Your task to perform on an android device: Open network settings Image 0: 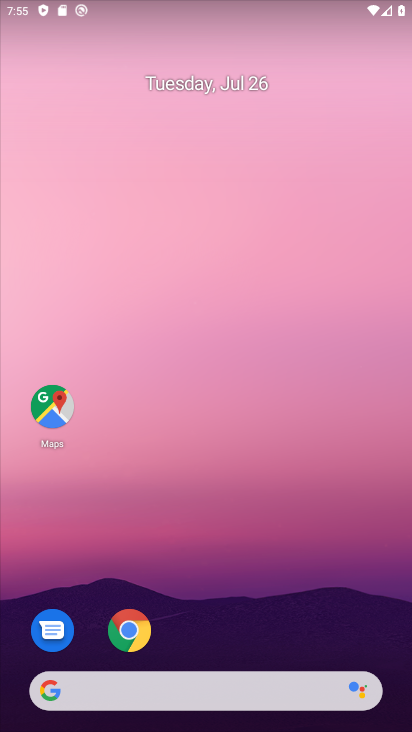
Step 0: drag from (257, 665) to (212, 148)
Your task to perform on an android device: Open network settings Image 1: 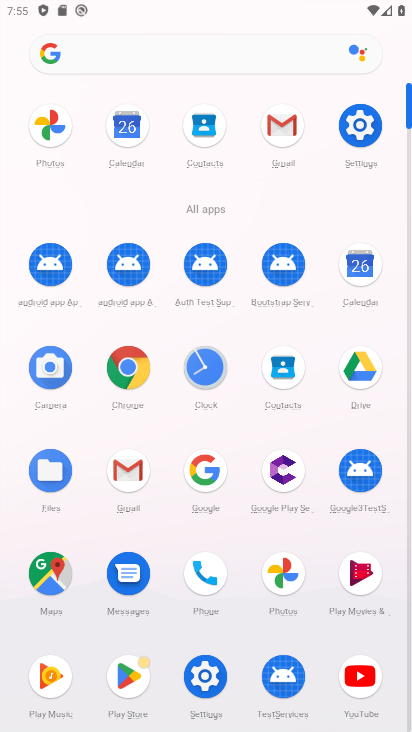
Step 1: click (204, 669)
Your task to perform on an android device: Open network settings Image 2: 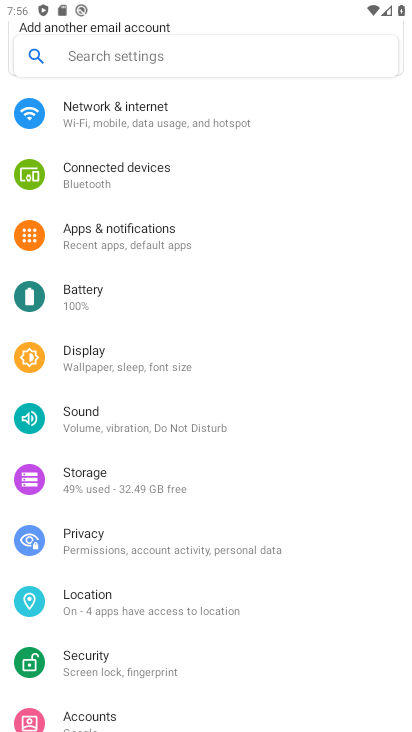
Step 2: click (136, 93)
Your task to perform on an android device: Open network settings Image 3: 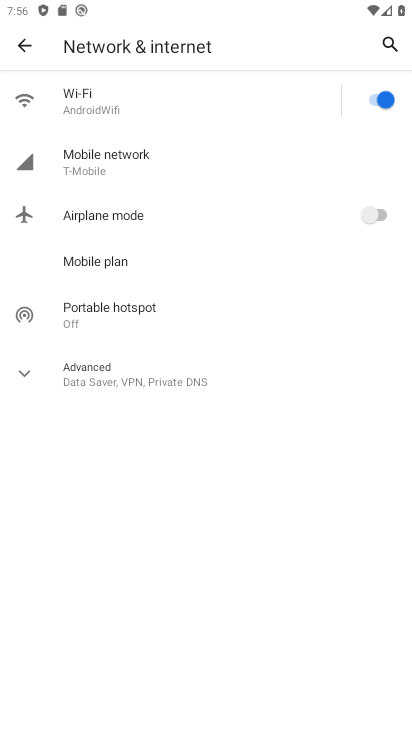
Step 3: click (167, 125)
Your task to perform on an android device: Open network settings Image 4: 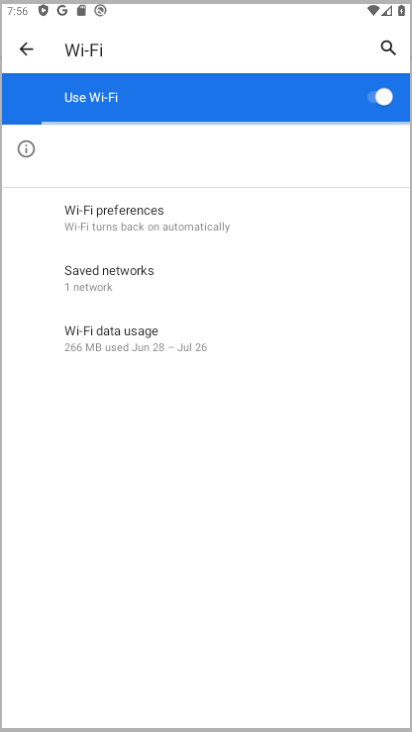
Step 4: task complete